Your task to perform on an android device: turn on notifications settings in the gmail app Image 0: 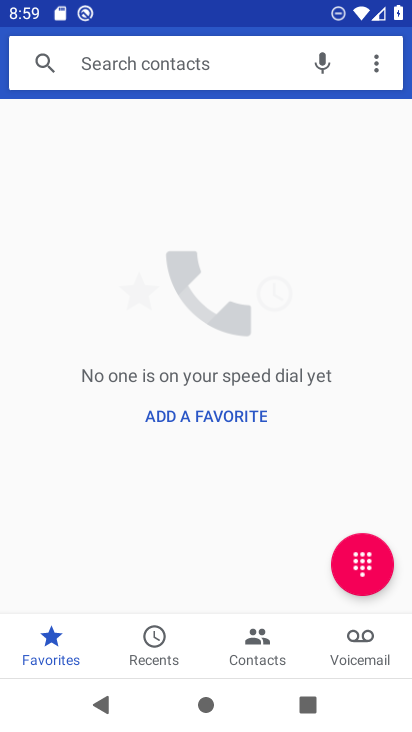
Step 0: press home button
Your task to perform on an android device: turn on notifications settings in the gmail app Image 1: 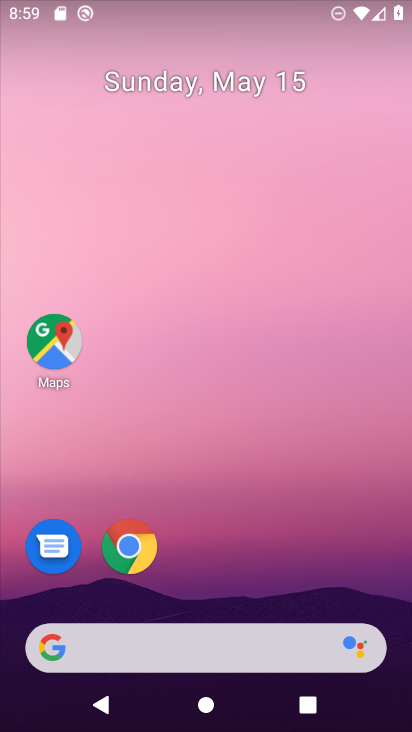
Step 1: drag from (274, 517) to (273, 107)
Your task to perform on an android device: turn on notifications settings in the gmail app Image 2: 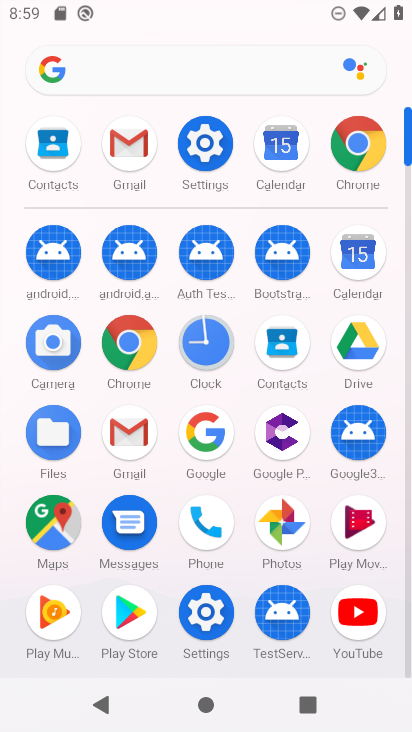
Step 2: click (133, 127)
Your task to perform on an android device: turn on notifications settings in the gmail app Image 3: 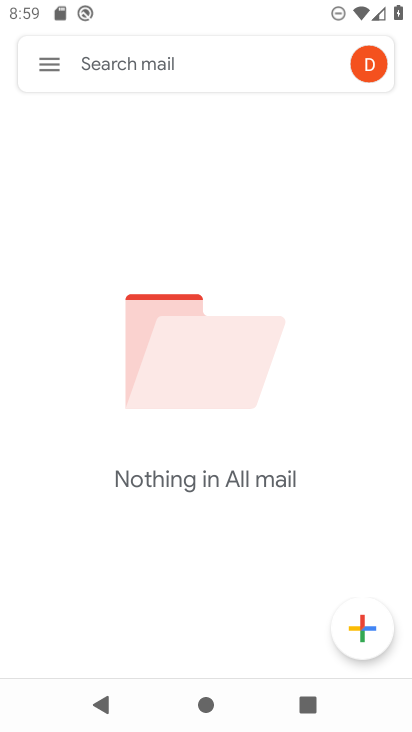
Step 3: click (57, 64)
Your task to perform on an android device: turn on notifications settings in the gmail app Image 4: 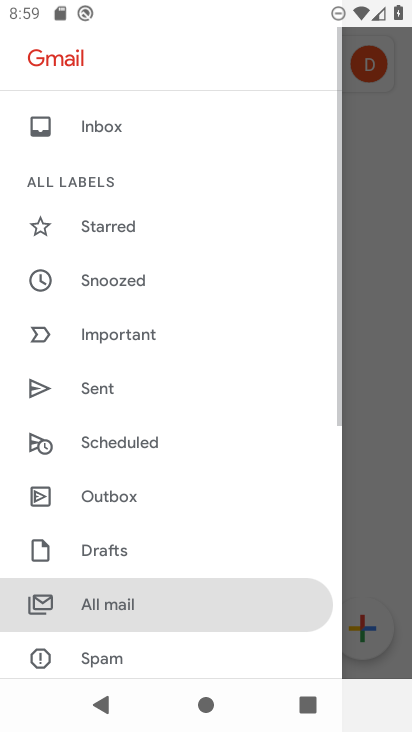
Step 4: drag from (174, 504) to (198, 189)
Your task to perform on an android device: turn on notifications settings in the gmail app Image 5: 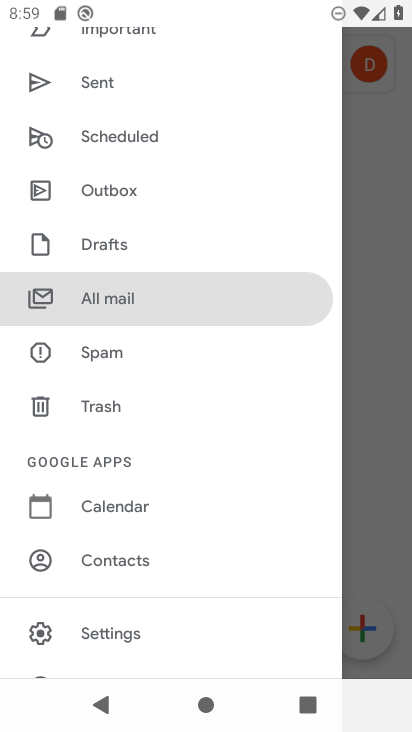
Step 5: click (197, 633)
Your task to perform on an android device: turn on notifications settings in the gmail app Image 6: 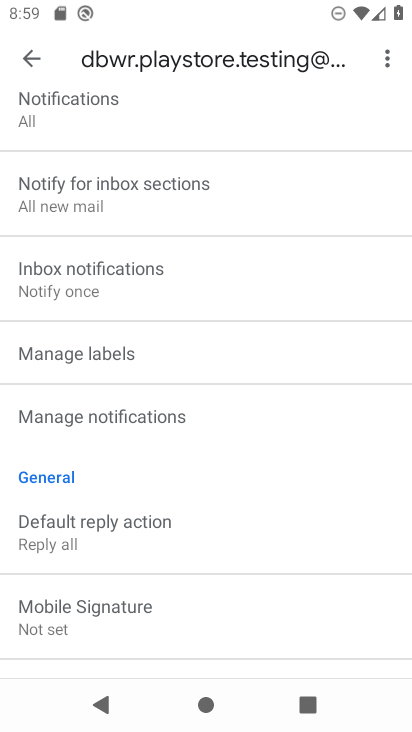
Step 6: click (173, 408)
Your task to perform on an android device: turn on notifications settings in the gmail app Image 7: 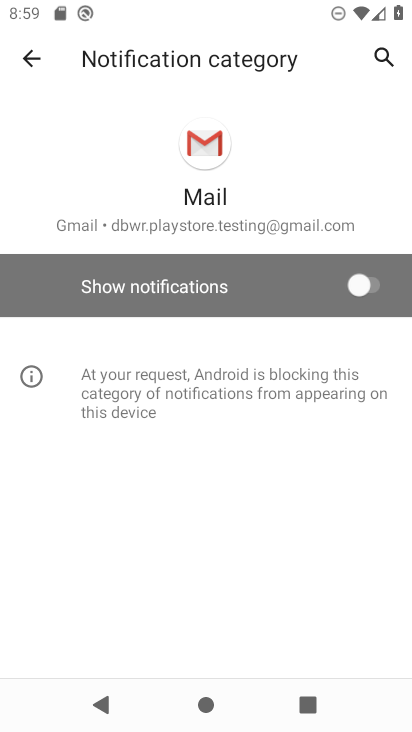
Step 7: click (361, 279)
Your task to perform on an android device: turn on notifications settings in the gmail app Image 8: 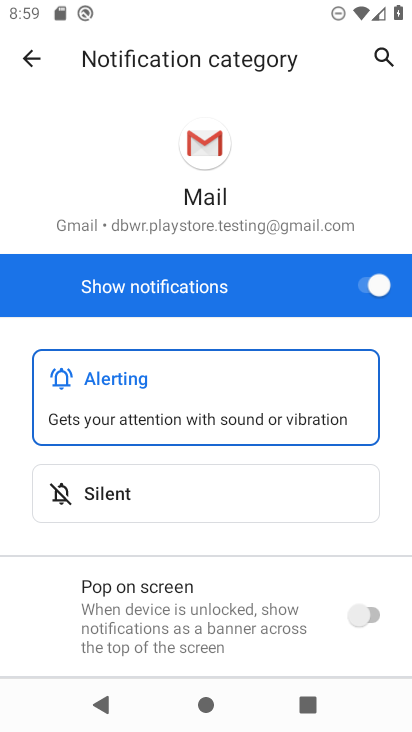
Step 8: task complete